Your task to perform on an android device: Open the map Image 0: 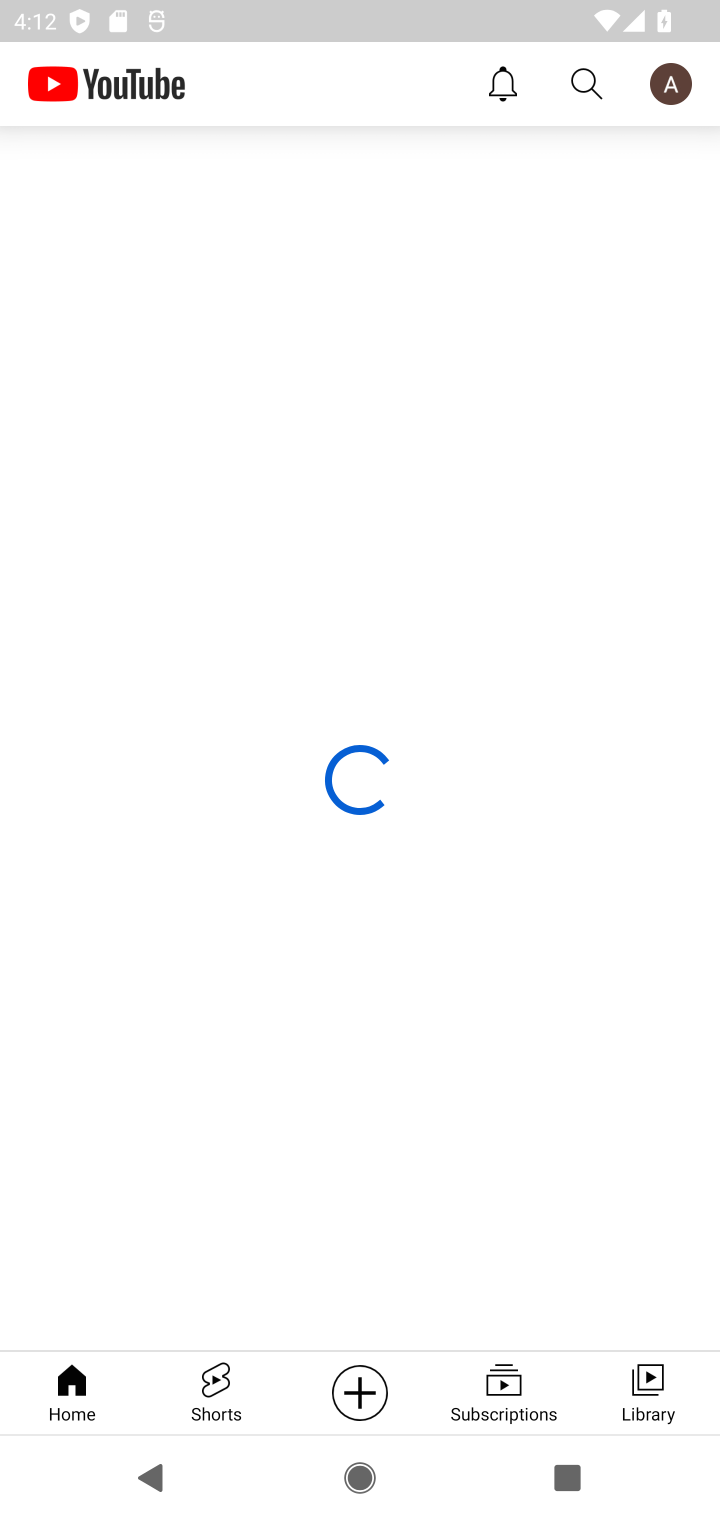
Step 0: press home button
Your task to perform on an android device: Open the map Image 1: 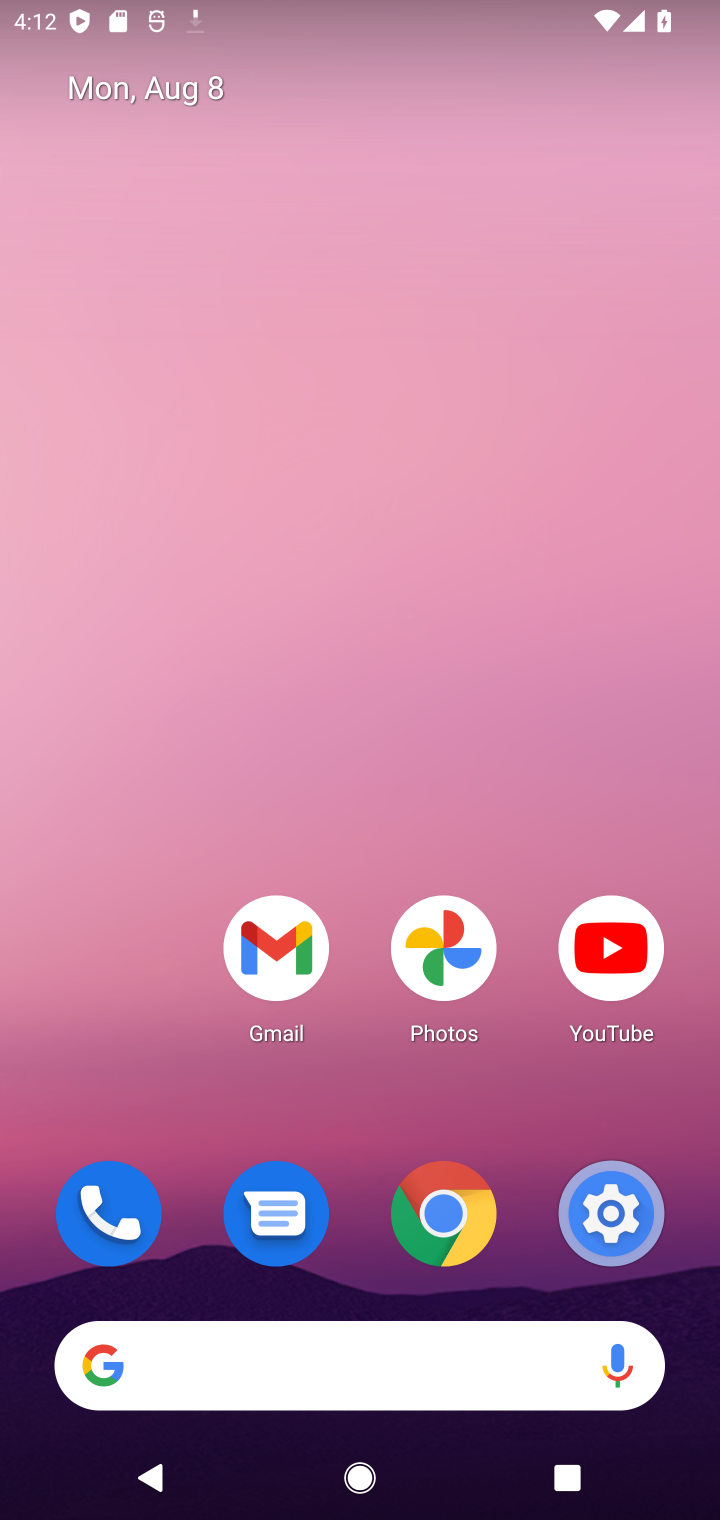
Step 1: drag from (393, 354) to (464, 3)
Your task to perform on an android device: Open the map Image 2: 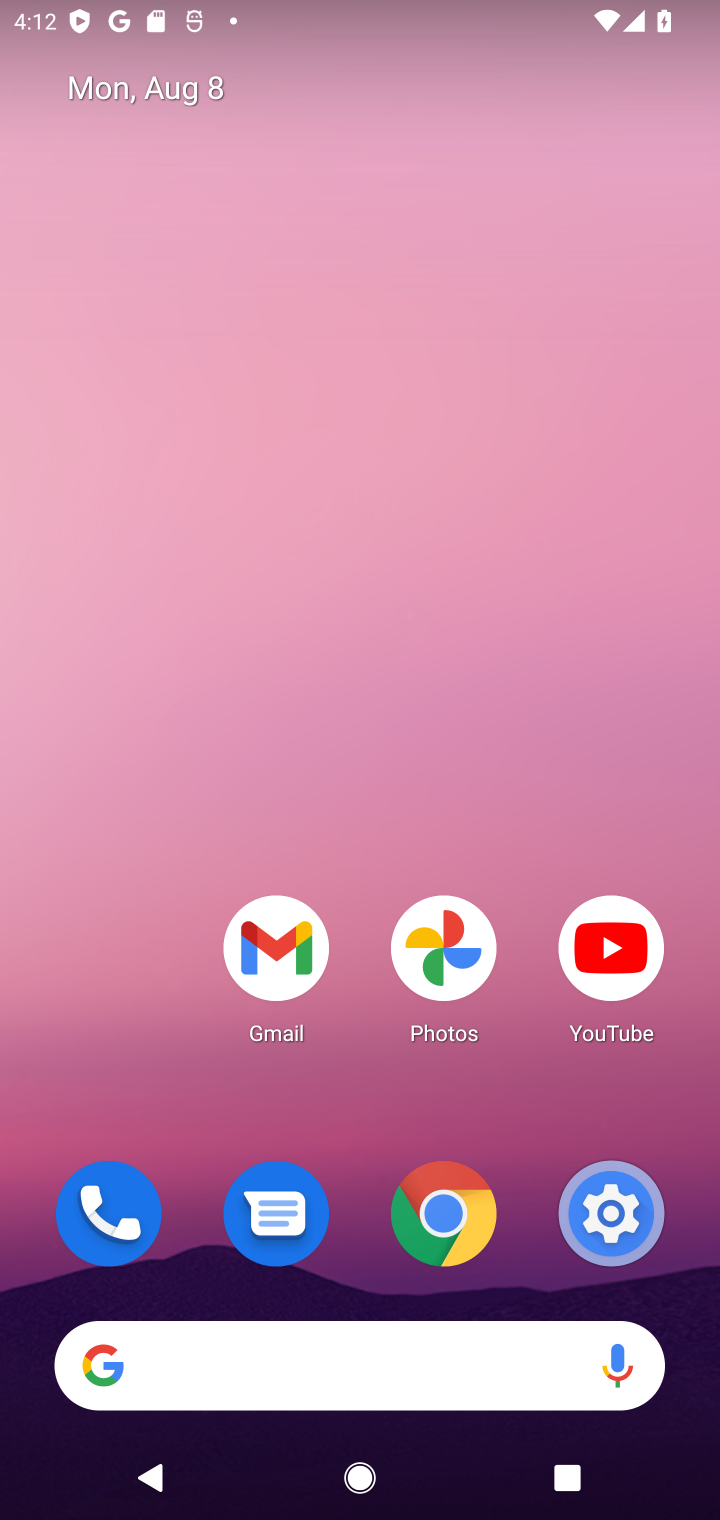
Step 2: drag from (353, 546) to (376, 178)
Your task to perform on an android device: Open the map Image 3: 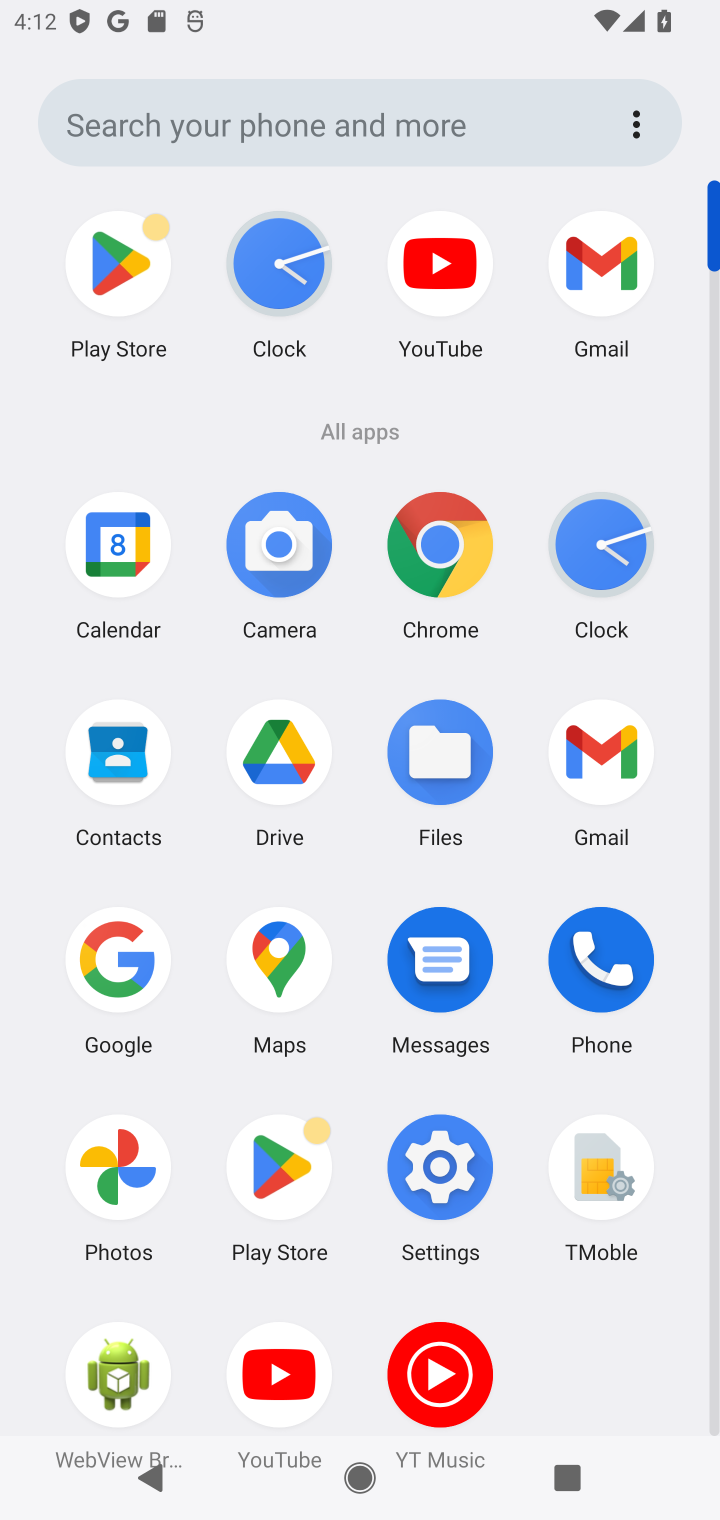
Step 3: click (289, 972)
Your task to perform on an android device: Open the map Image 4: 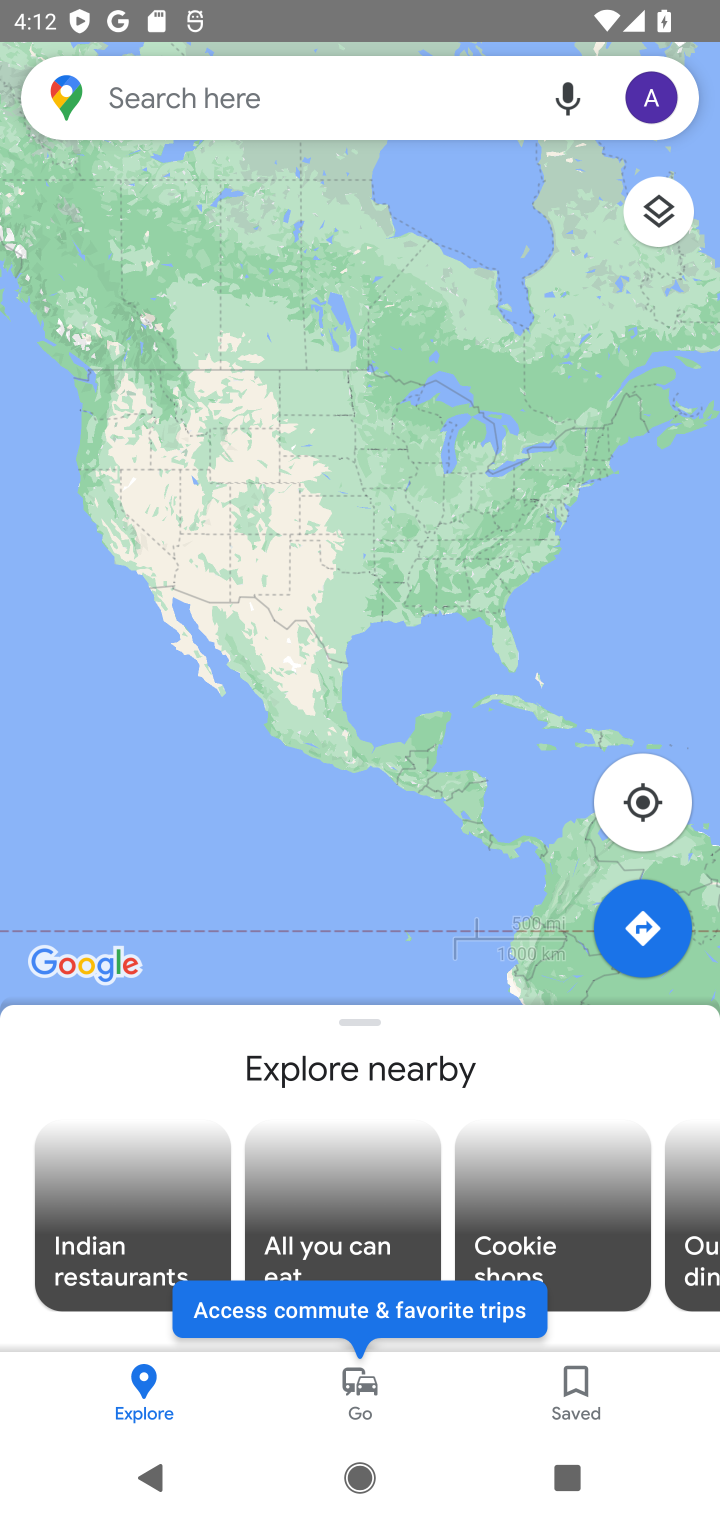
Step 4: task complete